Your task to perform on an android device: check storage Image 0: 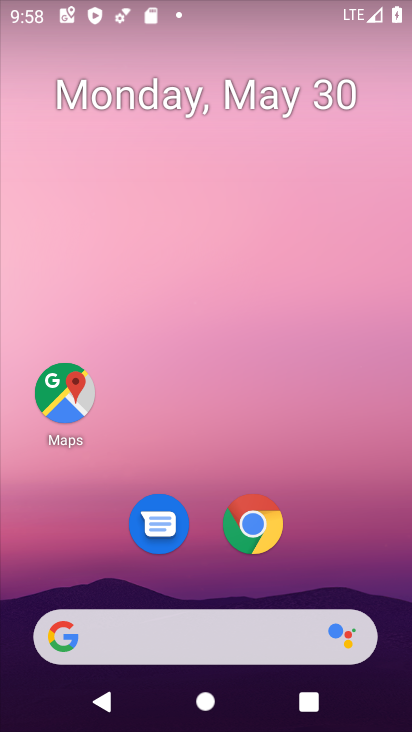
Step 0: drag from (209, 465) to (241, 18)
Your task to perform on an android device: check storage Image 1: 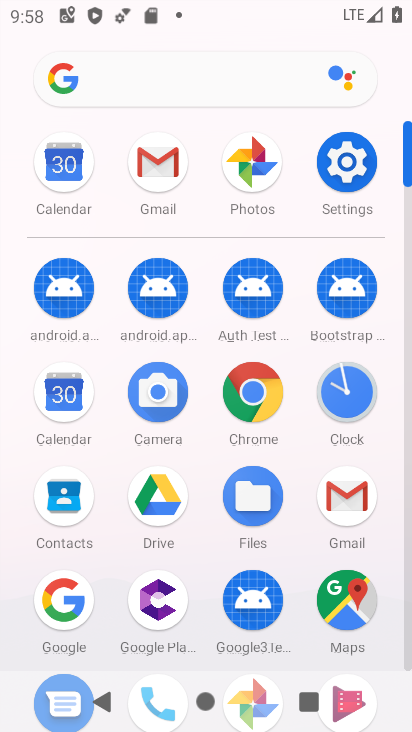
Step 1: click (326, 162)
Your task to perform on an android device: check storage Image 2: 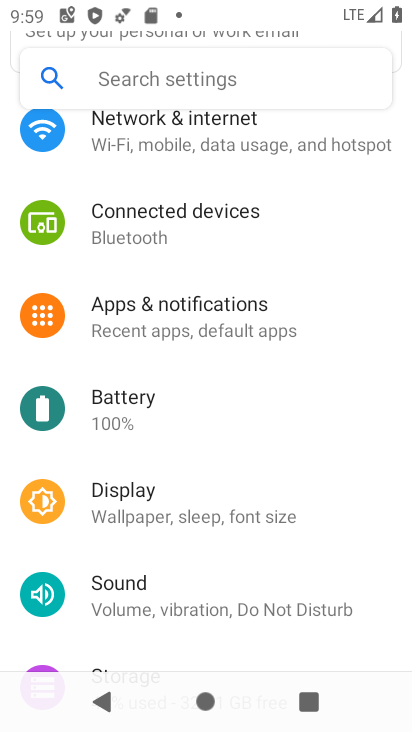
Step 2: drag from (227, 394) to (236, 99)
Your task to perform on an android device: check storage Image 3: 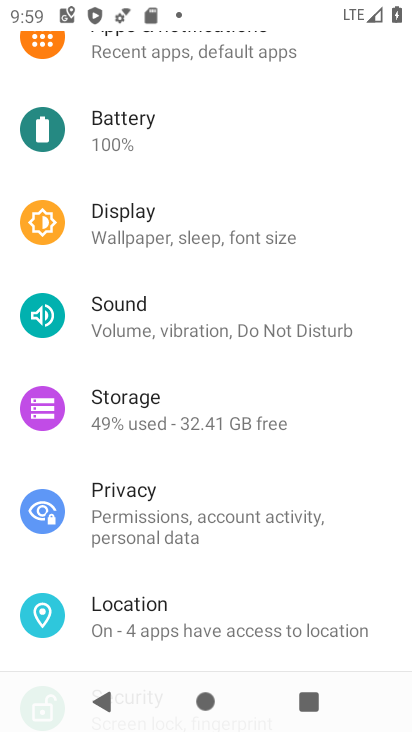
Step 3: click (229, 414)
Your task to perform on an android device: check storage Image 4: 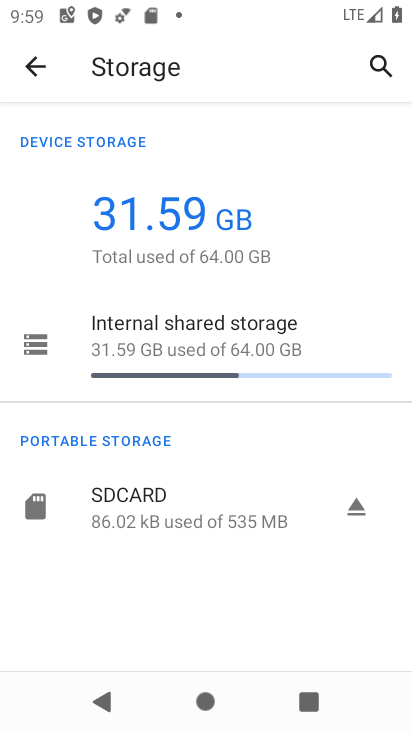
Step 4: task complete